Your task to perform on an android device: turn on improve location accuracy Image 0: 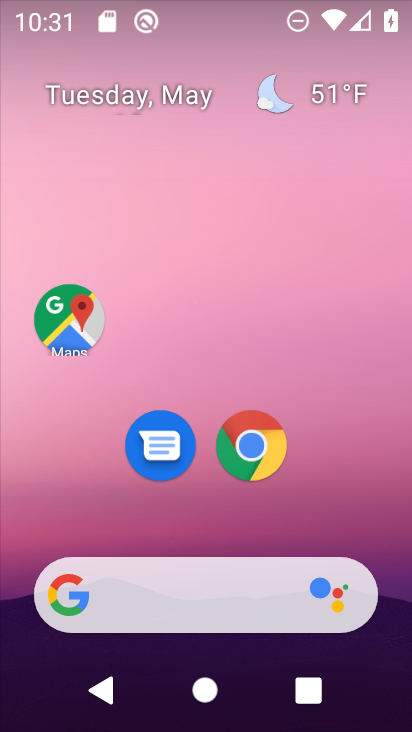
Step 0: drag from (236, 591) to (201, 11)
Your task to perform on an android device: turn on improve location accuracy Image 1: 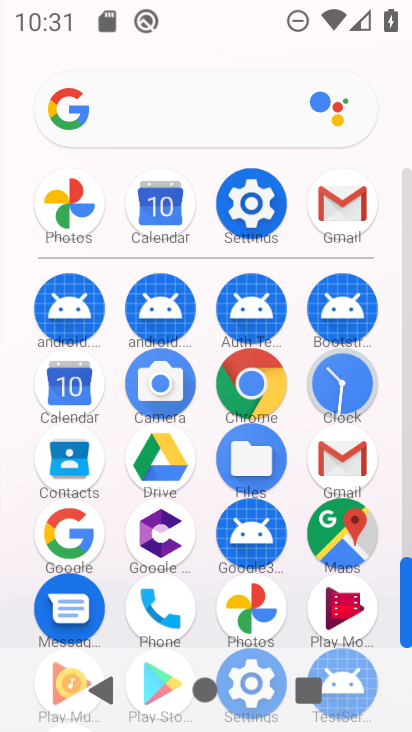
Step 1: click (260, 198)
Your task to perform on an android device: turn on improve location accuracy Image 2: 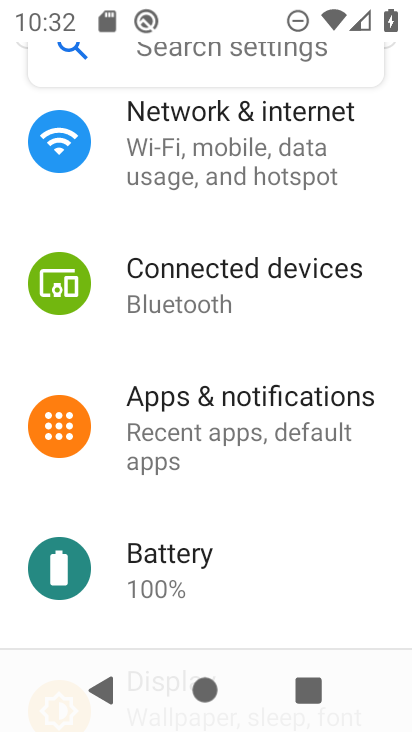
Step 2: drag from (185, 481) to (203, 49)
Your task to perform on an android device: turn on improve location accuracy Image 3: 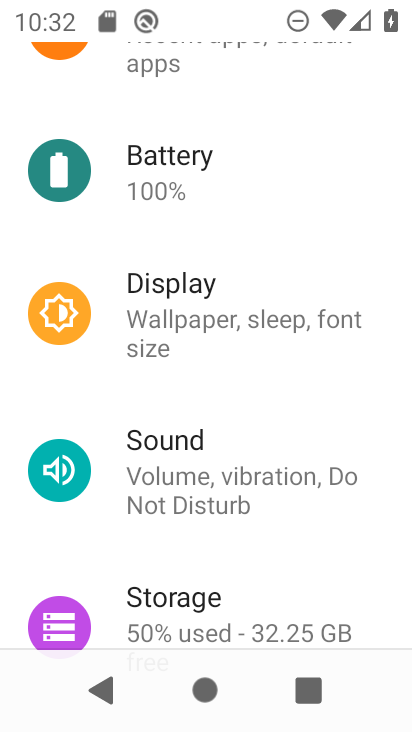
Step 3: drag from (202, 243) to (178, 42)
Your task to perform on an android device: turn on improve location accuracy Image 4: 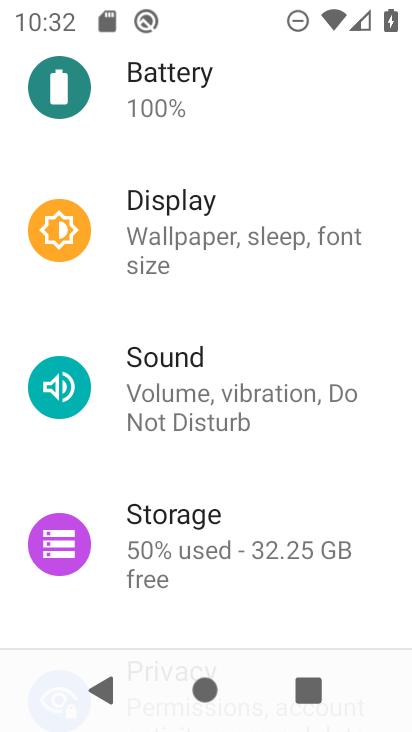
Step 4: drag from (214, 573) to (199, 18)
Your task to perform on an android device: turn on improve location accuracy Image 5: 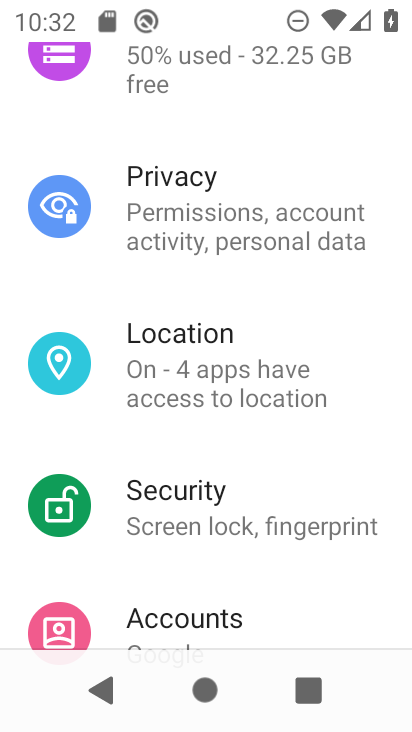
Step 5: click (159, 346)
Your task to perform on an android device: turn on improve location accuracy Image 6: 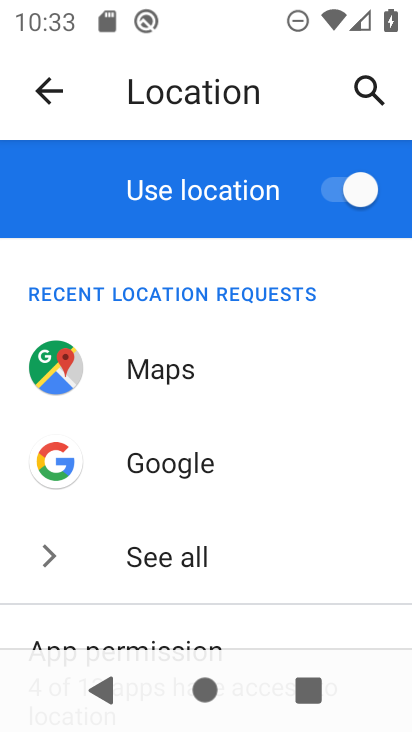
Step 6: drag from (212, 545) to (190, 11)
Your task to perform on an android device: turn on improve location accuracy Image 7: 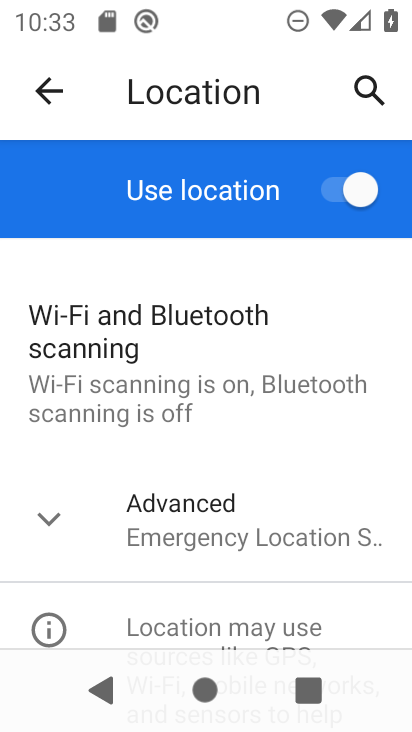
Step 7: drag from (259, 530) to (175, 40)
Your task to perform on an android device: turn on improve location accuracy Image 8: 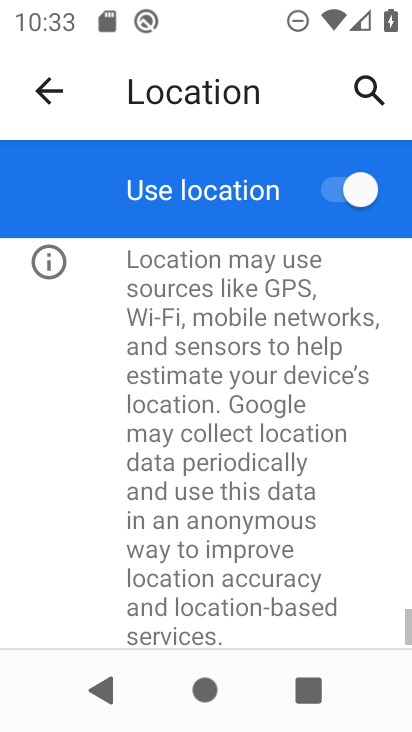
Step 8: drag from (177, 464) to (95, 711)
Your task to perform on an android device: turn on improve location accuracy Image 9: 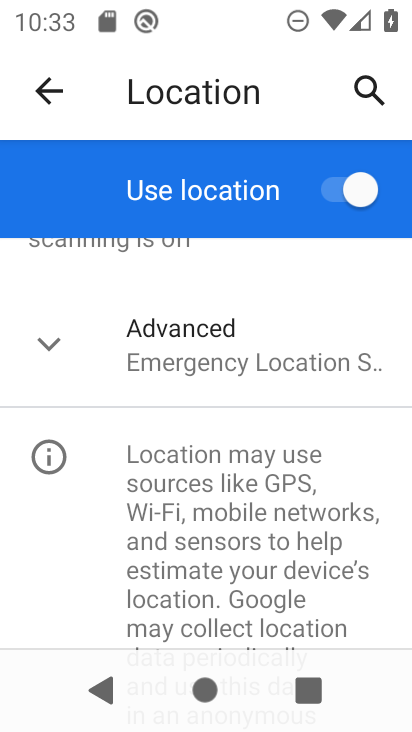
Step 9: click (159, 374)
Your task to perform on an android device: turn on improve location accuracy Image 10: 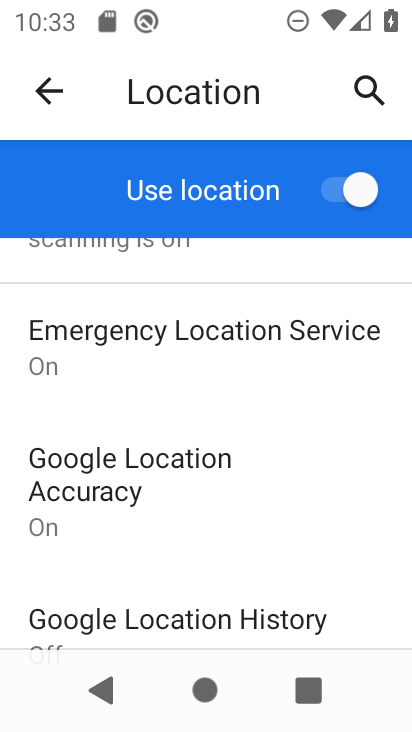
Step 10: click (164, 468)
Your task to perform on an android device: turn on improve location accuracy Image 11: 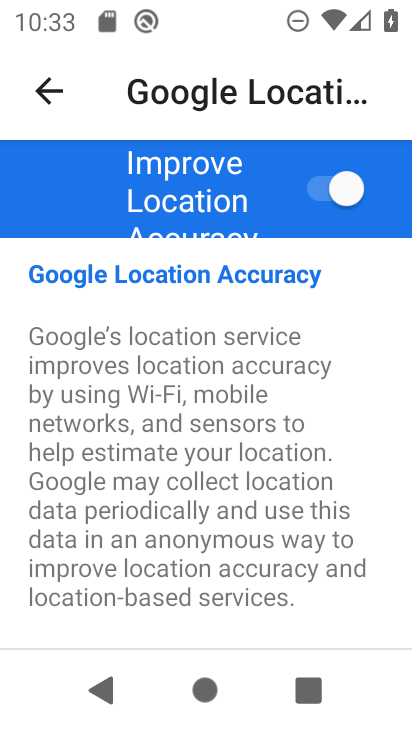
Step 11: task complete